Your task to perform on an android device: Turn on the flashlight Image 0: 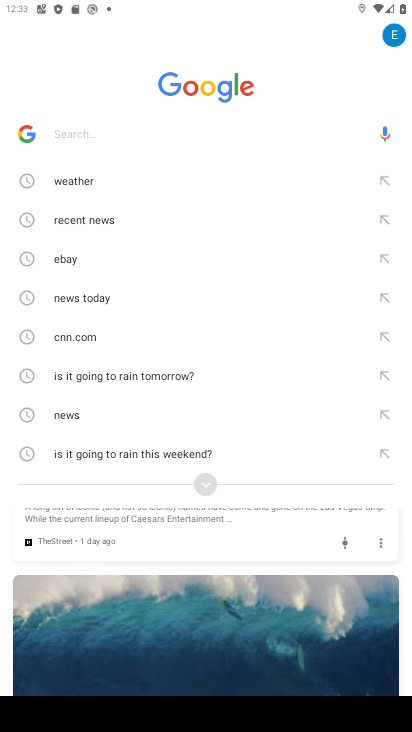
Step 0: press home button
Your task to perform on an android device: Turn on the flashlight Image 1: 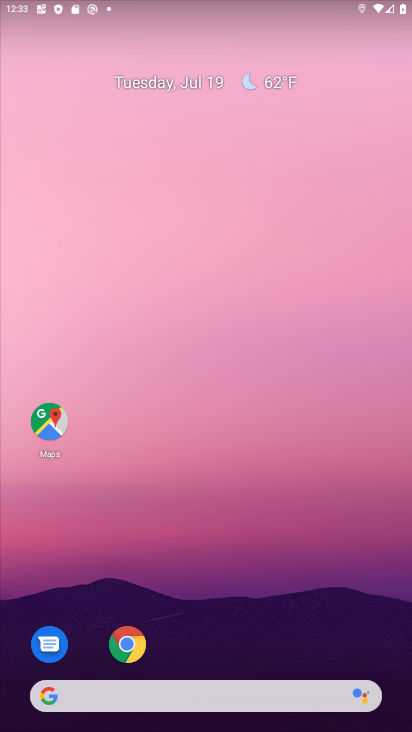
Step 1: drag from (248, 570) to (212, 256)
Your task to perform on an android device: Turn on the flashlight Image 2: 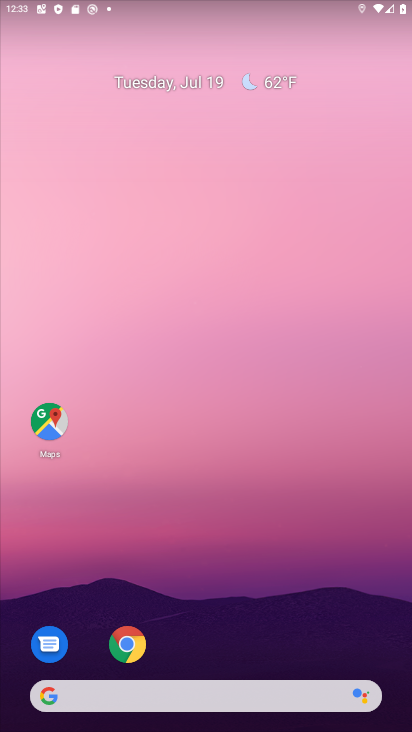
Step 2: drag from (222, 562) to (221, 42)
Your task to perform on an android device: Turn on the flashlight Image 3: 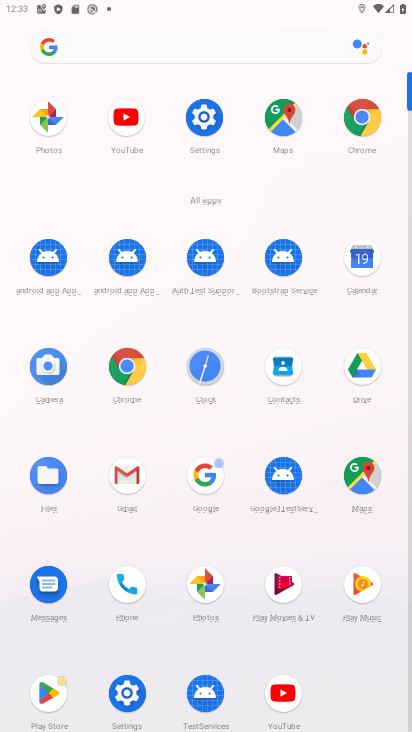
Step 3: click (206, 117)
Your task to perform on an android device: Turn on the flashlight Image 4: 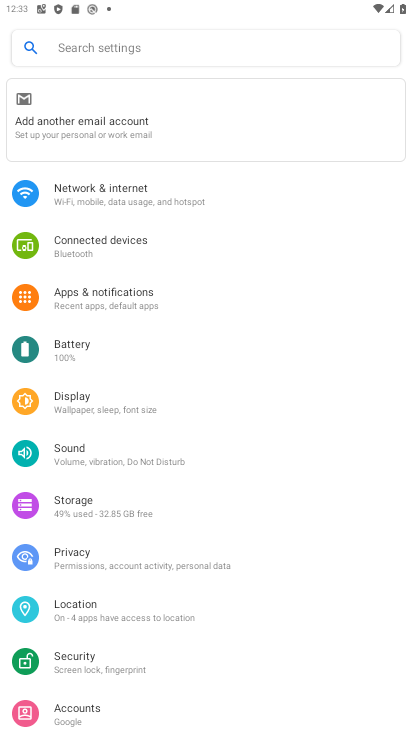
Step 4: click (61, 399)
Your task to perform on an android device: Turn on the flashlight Image 5: 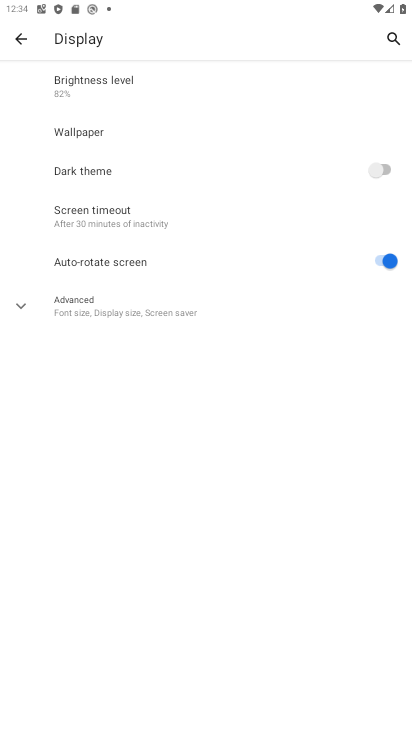
Step 5: task complete